Your task to perform on an android device: open app "Life360: Find Family & Friends" (install if not already installed) and go to login screen Image 0: 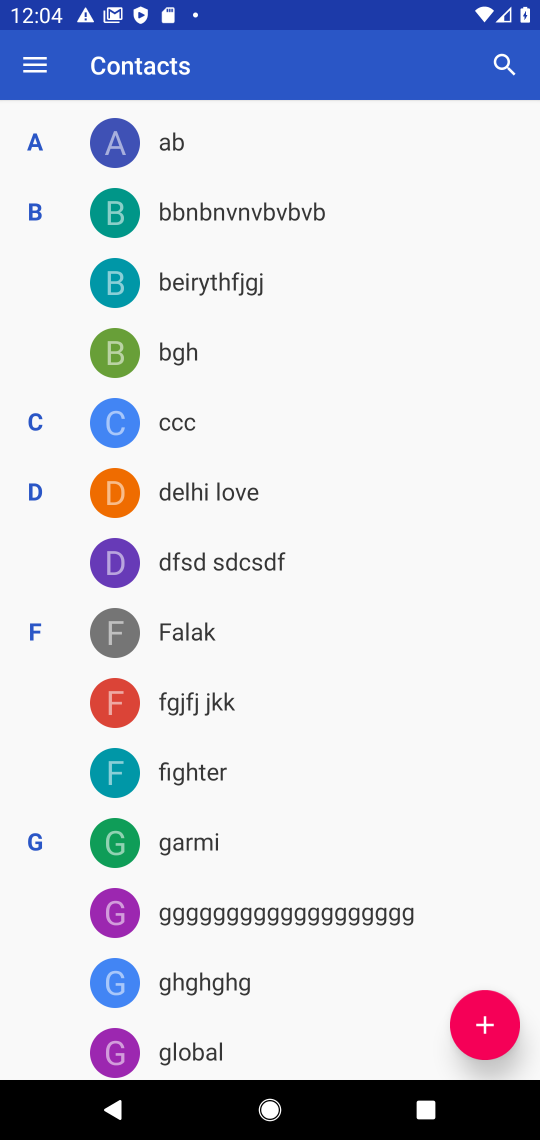
Step 0: press home button
Your task to perform on an android device: open app "Life360: Find Family & Friends" (install if not already installed) and go to login screen Image 1: 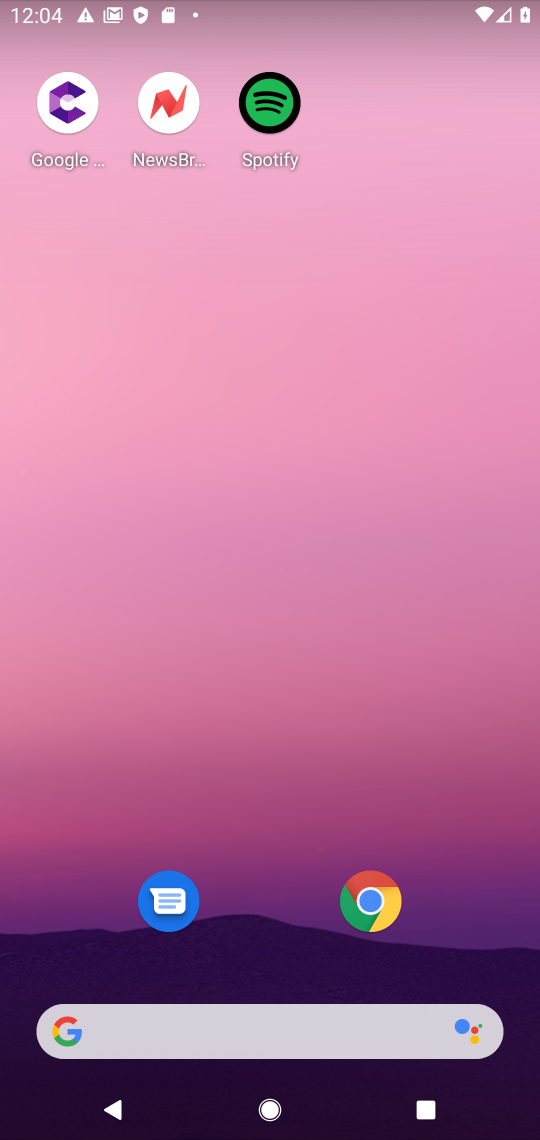
Step 1: drag from (274, 1021) to (331, 221)
Your task to perform on an android device: open app "Life360: Find Family & Friends" (install if not already installed) and go to login screen Image 2: 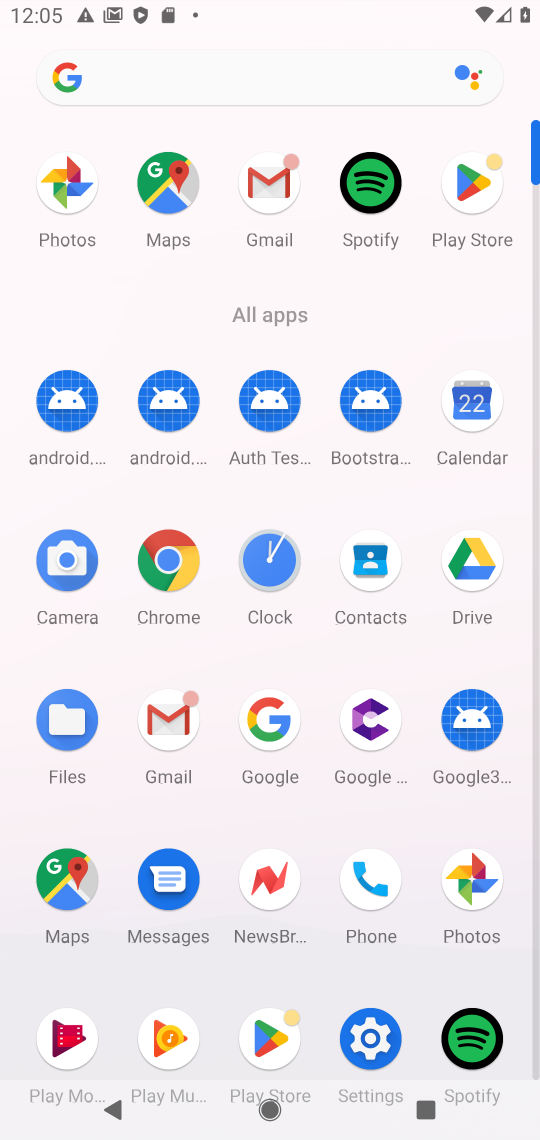
Step 2: click (473, 197)
Your task to perform on an android device: open app "Life360: Find Family & Friends" (install if not already installed) and go to login screen Image 3: 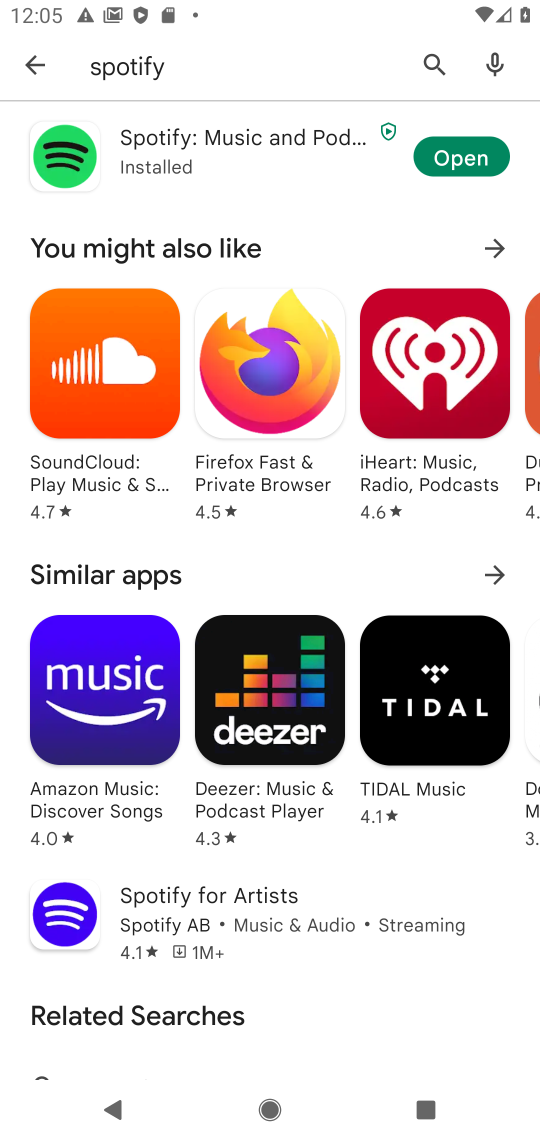
Step 3: click (439, 57)
Your task to perform on an android device: open app "Life360: Find Family & Friends" (install if not already installed) and go to login screen Image 4: 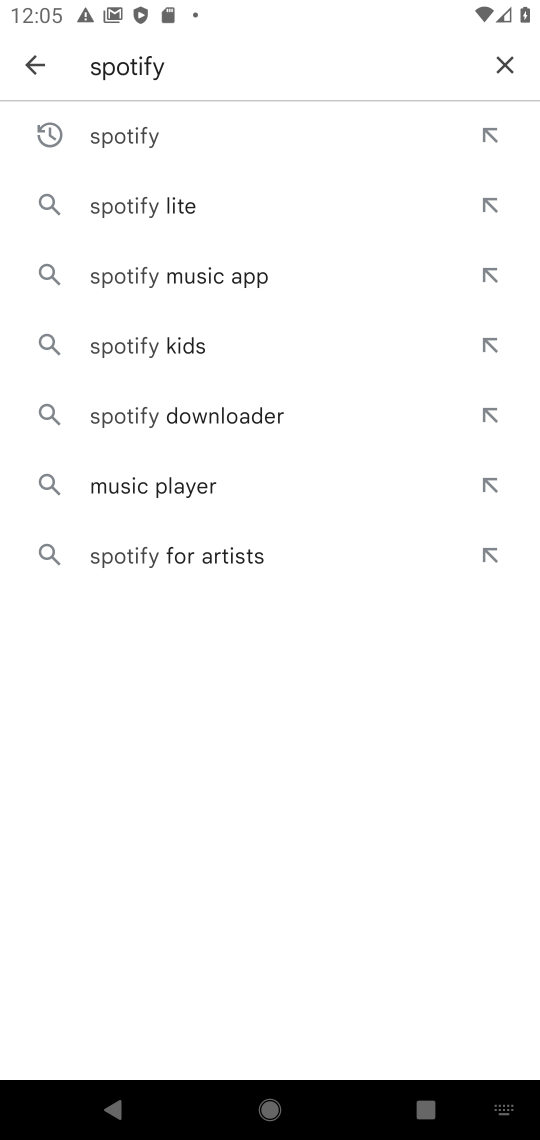
Step 4: click (507, 71)
Your task to perform on an android device: open app "Life360: Find Family & Friends" (install if not already installed) and go to login screen Image 5: 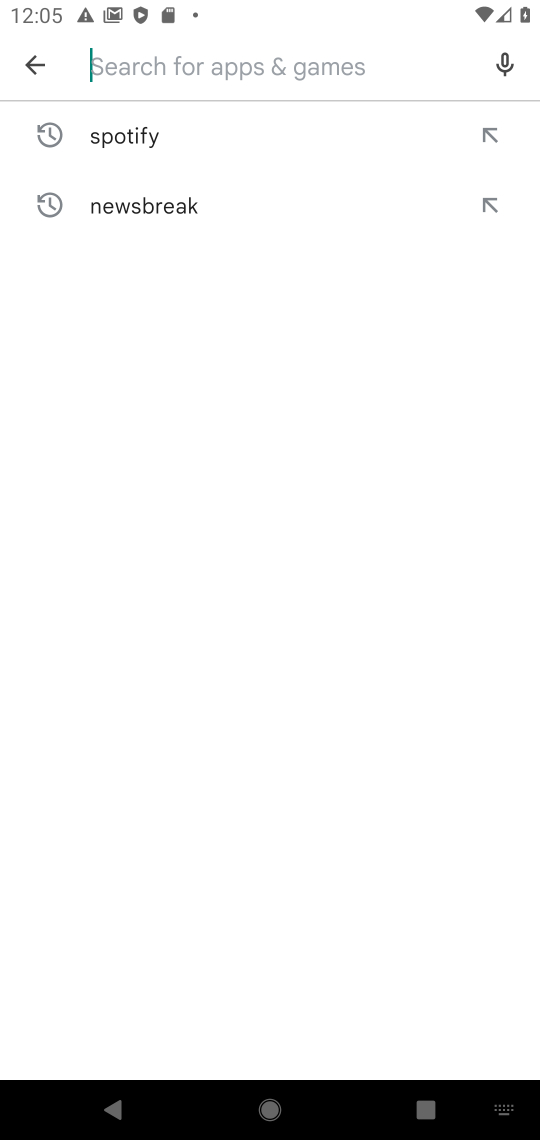
Step 5: type "life 360"
Your task to perform on an android device: open app "Life360: Find Family & Friends" (install if not already installed) and go to login screen Image 6: 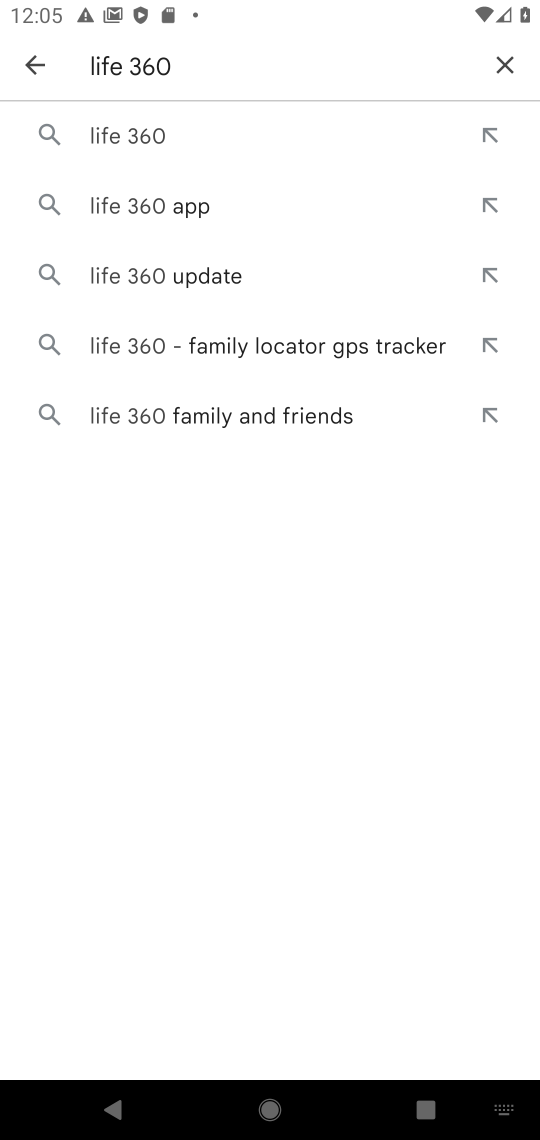
Step 6: click (212, 120)
Your task to perform on an android device: open app "Life360: Find Family & Friends" (install if not already installed) and go to login screen Image 7: 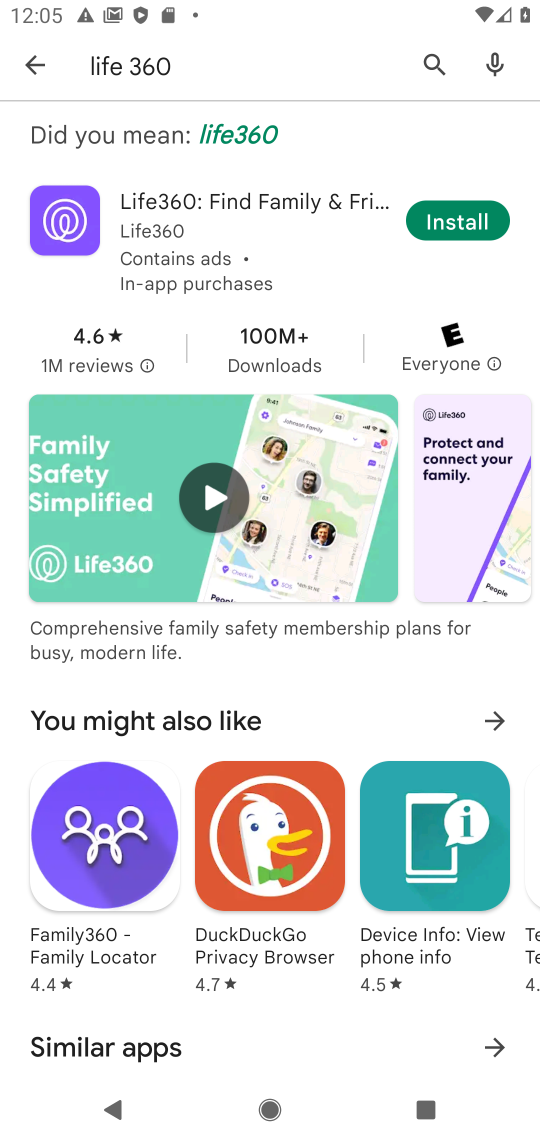
Step 7: click (467, 240)
Your task to perform on an android device: open app "Life360: Find Family & Friends" (install if not already installed) and go to login screen Image 8: 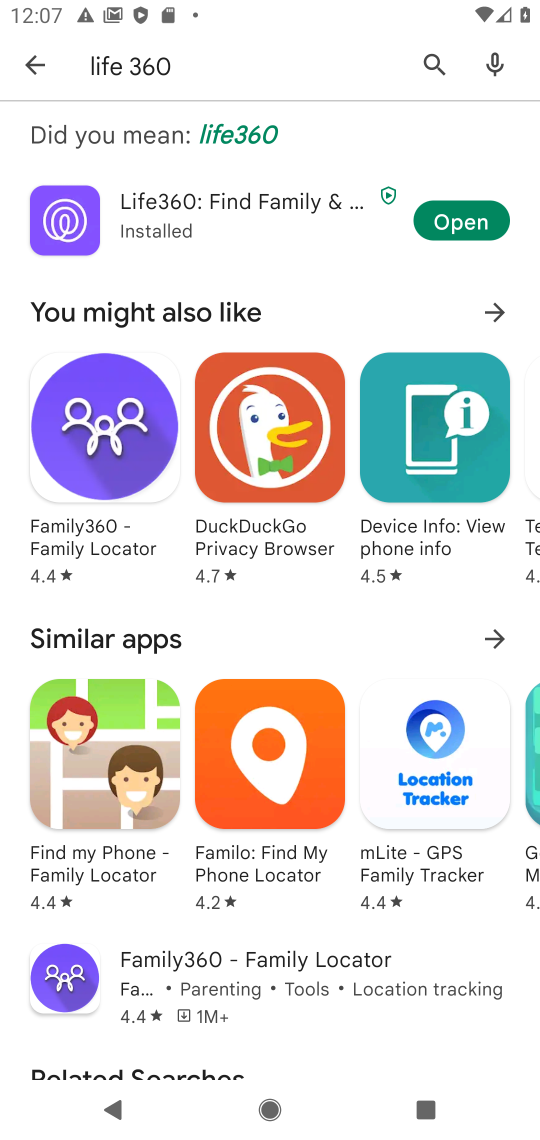
Step 8: click (446, 222)
Your task to perform on an android device: open app "Life360: Find Family & Friends" (install if not already installed) and go to login screen Image 9: 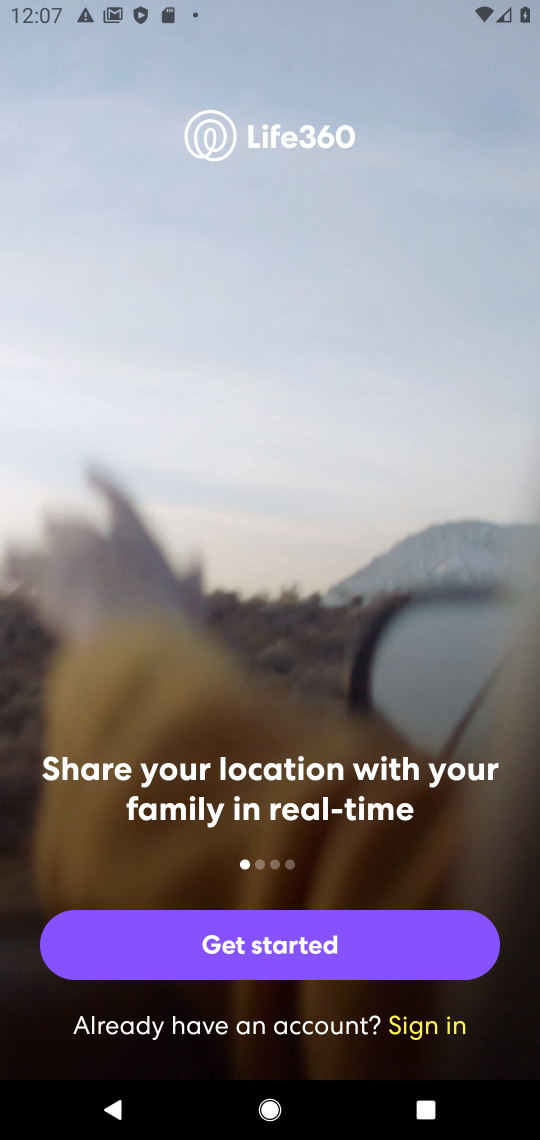
Step 9: click (413, 1035)
Your task to perform on an android device: open app "Life360: Find Family & Friends" (install if not already installed) and go to login screen Image 10: 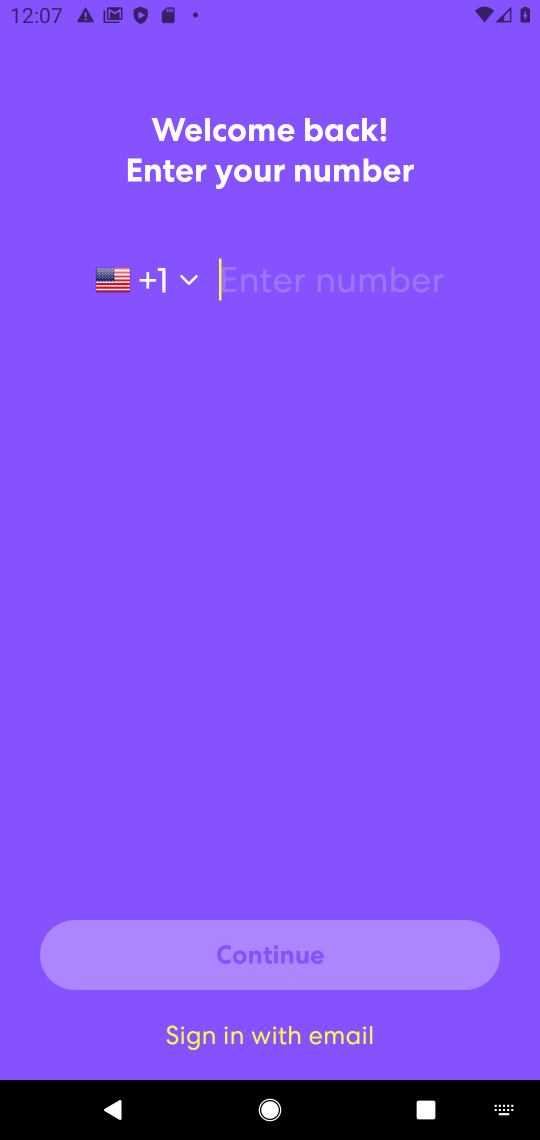
Step 10: task complete